Your task to perform on an android device: Go to Google Image 0: 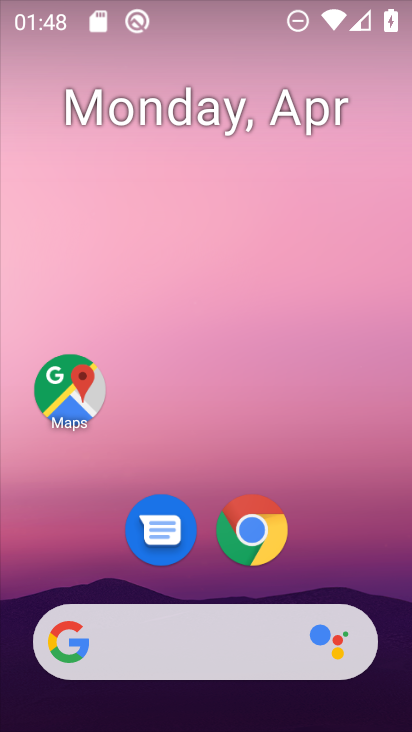
Step 0: click (170, 645)
Your task to perform on an android device: Go to Google Image 1: 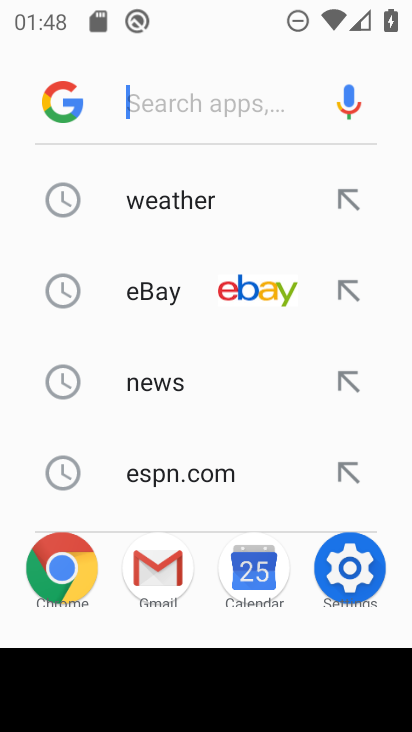
Step 1: click (66, 92)
Your task to perform on an android device: Go to Google Image 2: 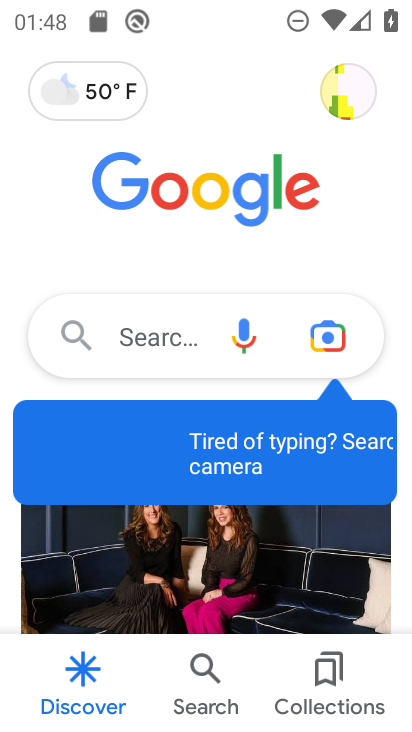
Step 2: task complete